Your task to perform on an android device: Open my contact list Image 0: 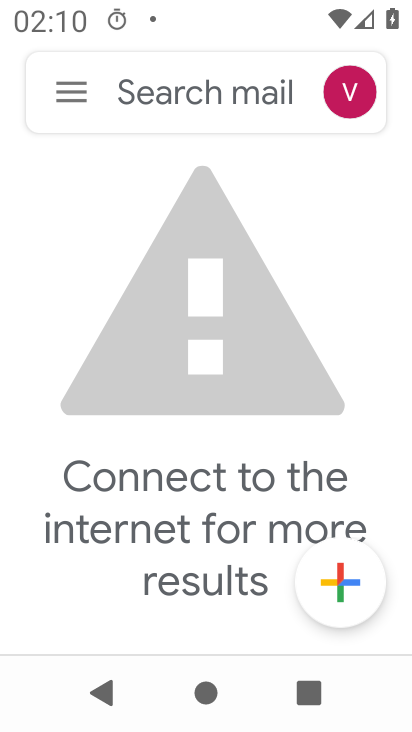
Step 0: press home button
Your task to perform on an android device: Open my contact list Image 1: 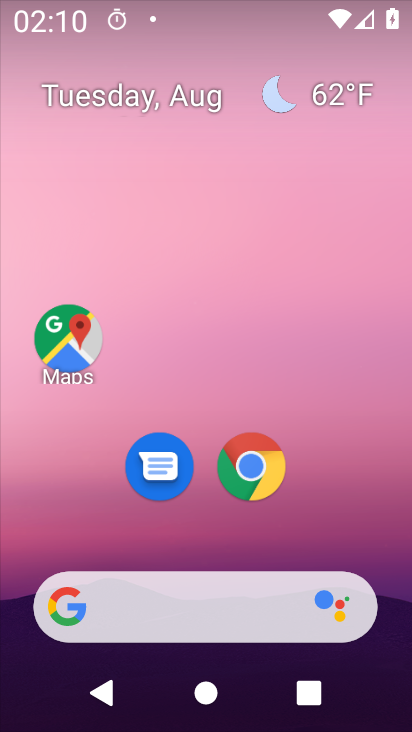
Step 1: drag from (378, 533) to (380, 186)
Your task to perform on an android device: Open my contact list Image 2: 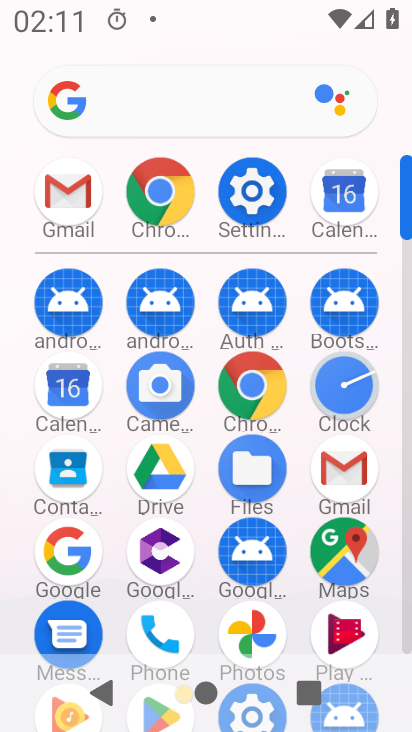
Step 2: click (64, 478)
Your task to perform on an android device: Open my contact list Image 3: 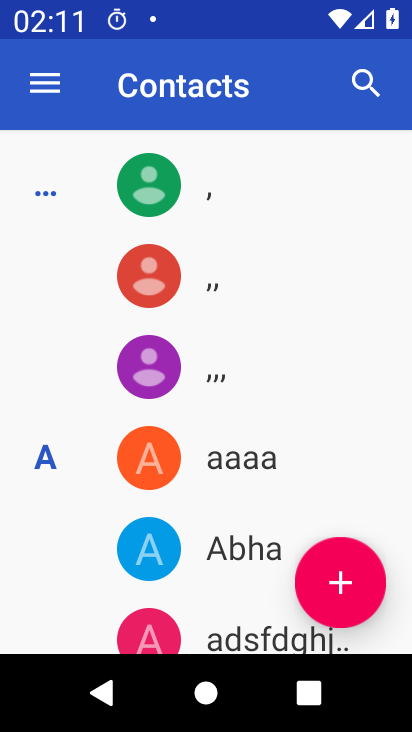
Step 3: task complete